Your task to perform on an android device: Go to display settings Image 0: 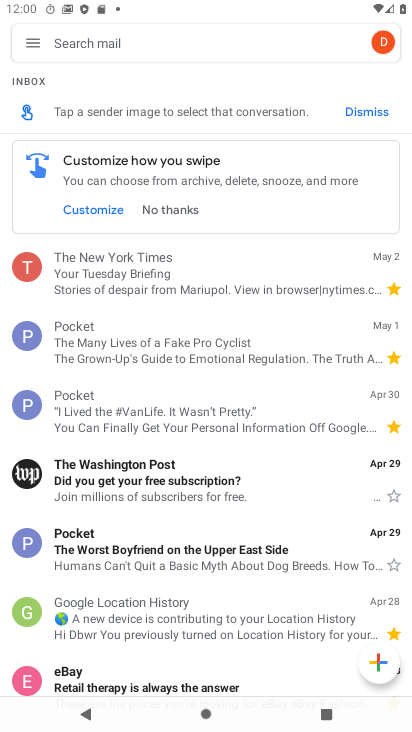
Step 0: press back button
Your task to perform on an android device: Go to display settings Image 1: 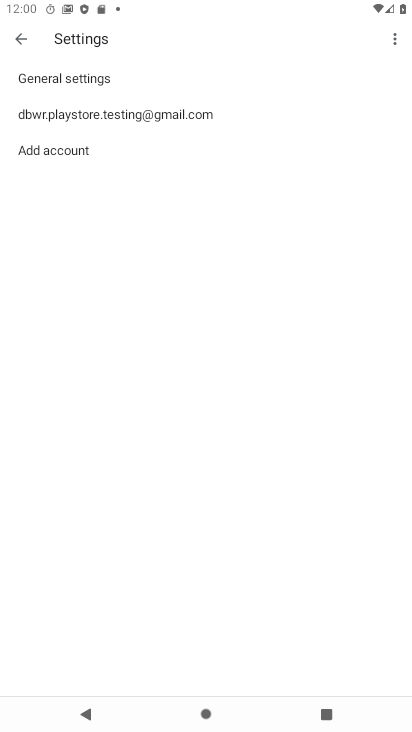
Step 1: press back button
Your task to perform on an android device: Go to display settings Image 2: 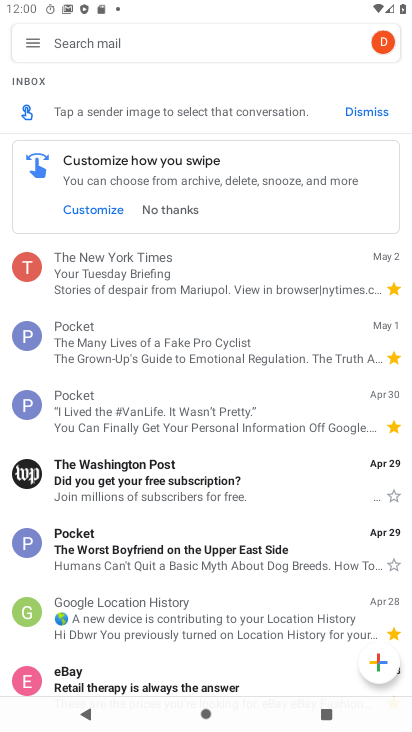
Step 2: press home button
Your task to perform on an android device: Go to display settings Image 3: 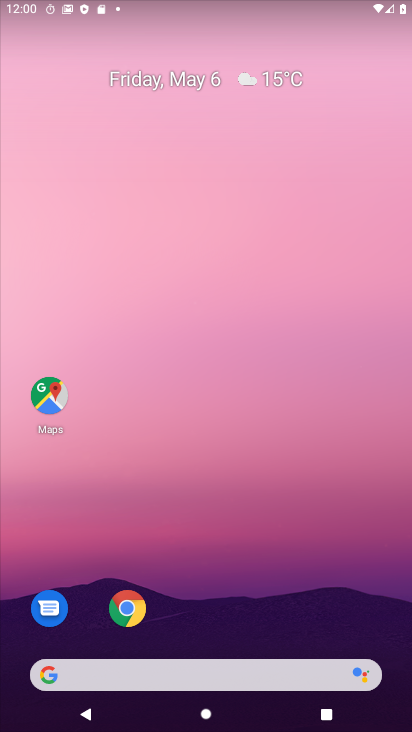
Step 3: drag from (196, 607) to (197, 132)
Your task to perform on an android device: Go to display settings Image 4: 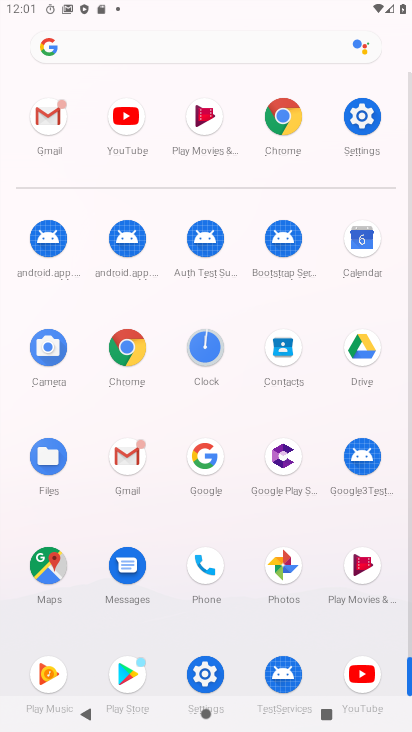
Step 4: click (203, 675)
Your task to perform on an android device: Go to display settings Image 5: 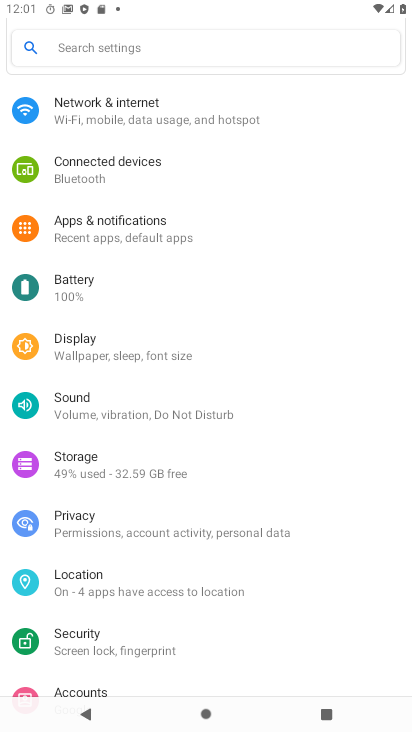
Step 5: click (115, 356)
Your task to perform on an android device: Go to display settings Image 6: 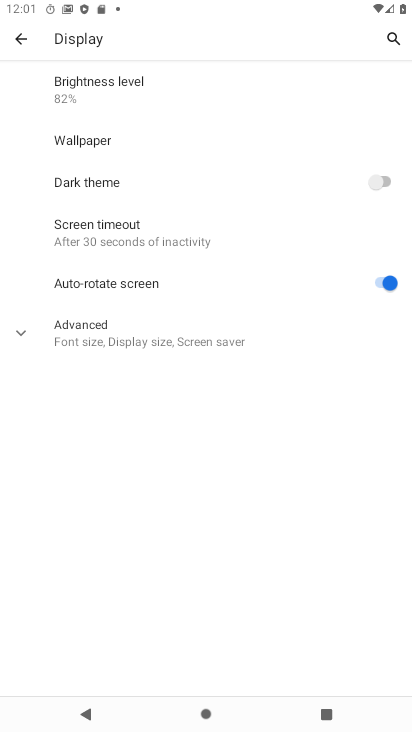
Step 6: task complete